Your task to perform on an android device: manage bookmarks in the chrome app Image 0: 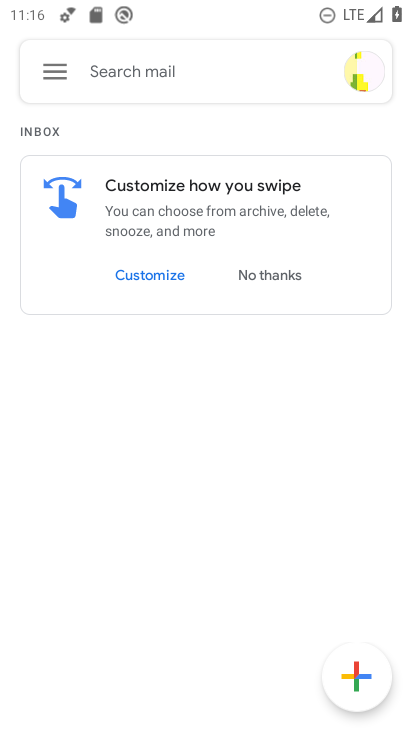
Step 0: press home button
Your task to perform on an android device: manage bookmarks in the chrome app Image 1: 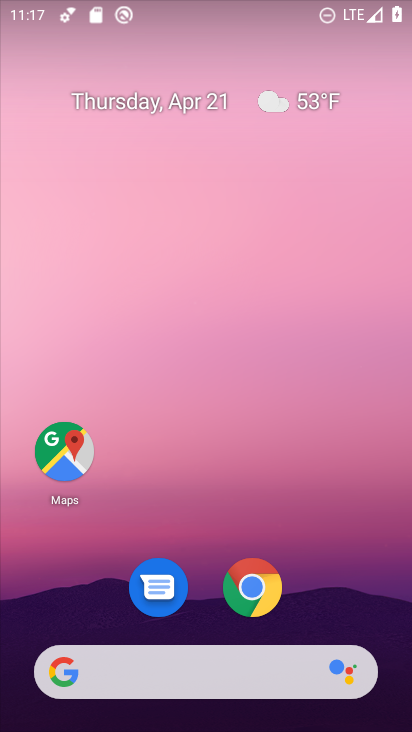
Step 1: click (253, 603)
Your task to perform on an android device: manage bookmarks in the chrome app Image 2: 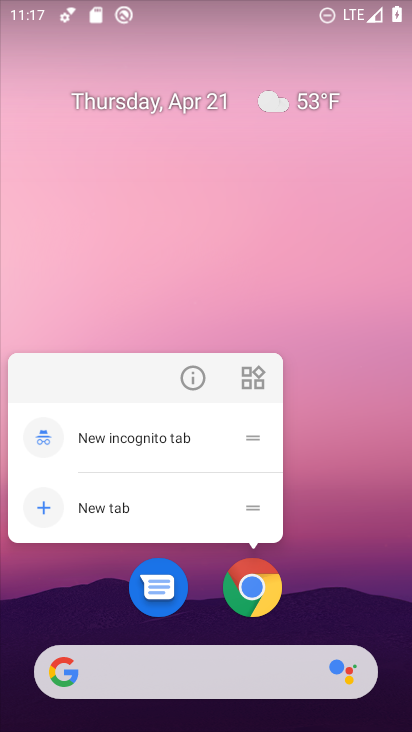
Step 2: click (236, 609)
Your task to perform on an android device: manage bookmarks in the chrome app Image 3: 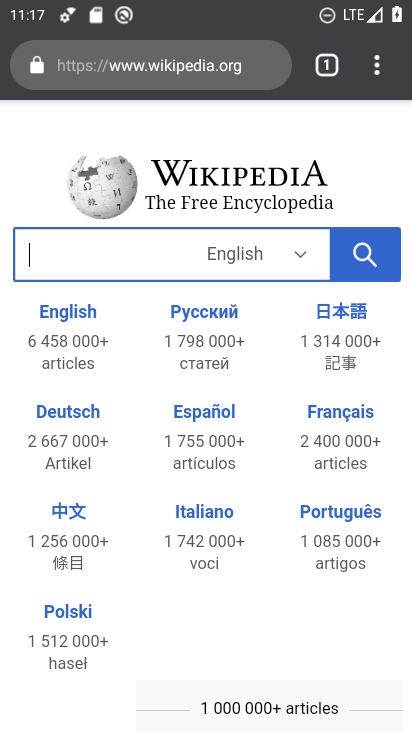
Step 3: task complete